Your task to perform on an android device: open app "DuckDuckGo Privacy Browser" Image 0: 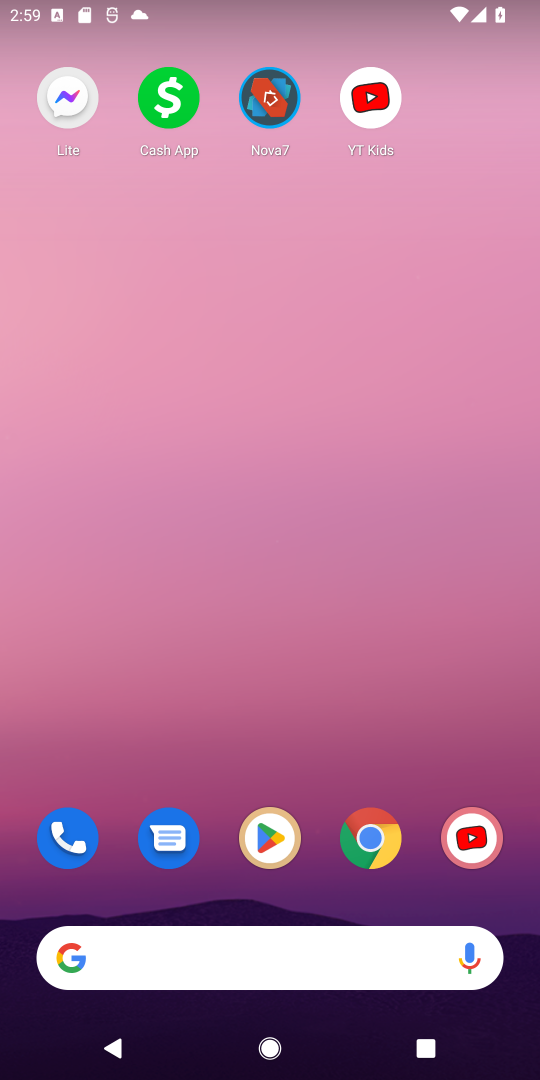
Step 0: click (268, 826)
Your task to perform on an android device: open app "DuckDuckGo Privacy Browser" Image 1: 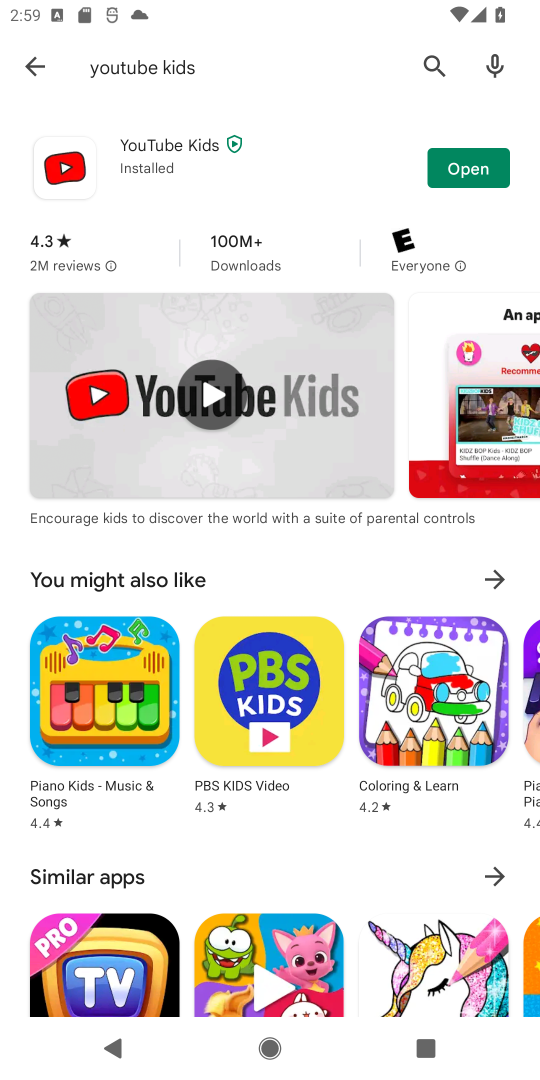
Step 1: click (25, 76)
Your task to perform on an android device: open app "DuckDuckGo Privacy Browser" Image 2: 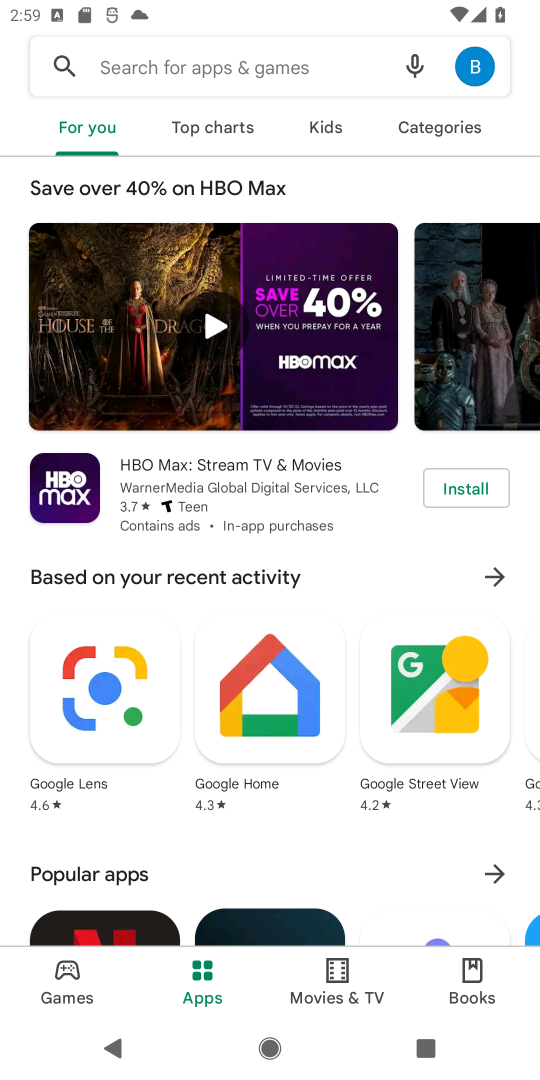
Step 2: click (101, 66)
Your task to perform on an android device: open app "DuckDuckGo Privacy Browser" Image 3: 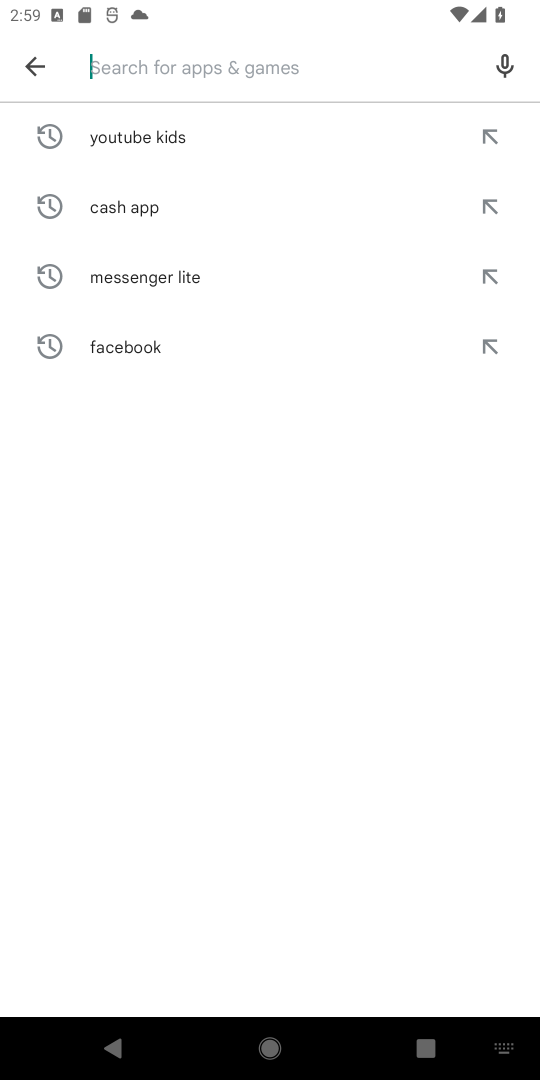
Step 3: type "DuckDuckGo Privacy Browser"
Your task to perform on an android device: open app "DuckDuckGo Privacy Browser" Image 4: 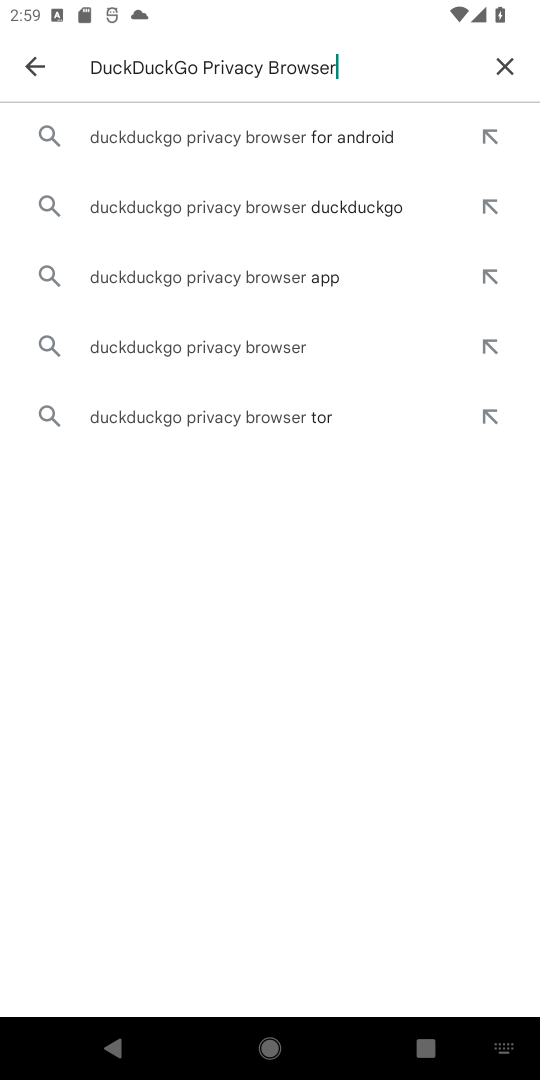
Step 4: click (155, 135)
Your task to perform on an android device: open app "DuckDuckGo Privacy Browser" Image 5: 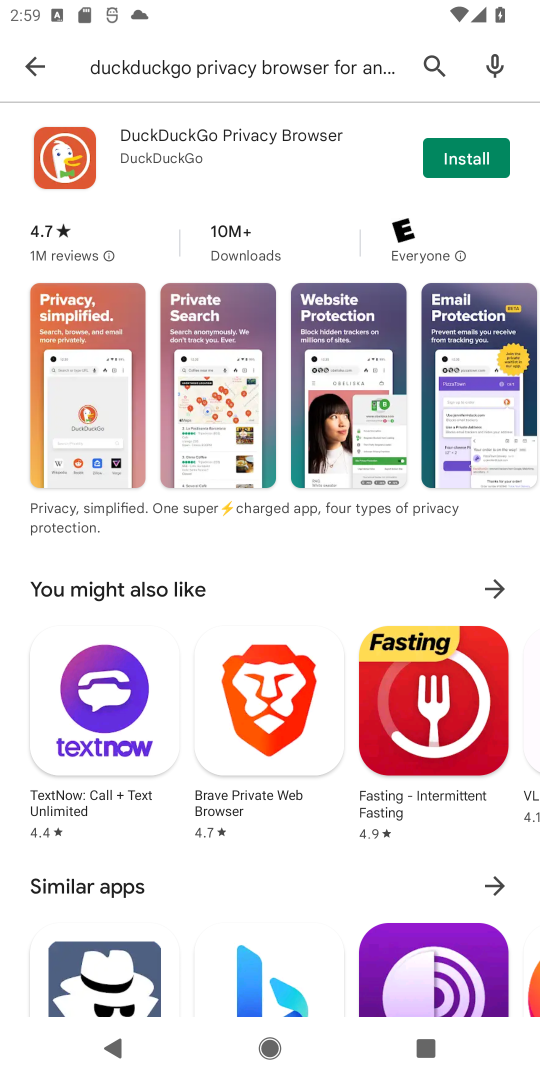
Step 5: task complete